Your task to perform on an android device: open app "Mercado Libre" (install if not already installed) Image 0: 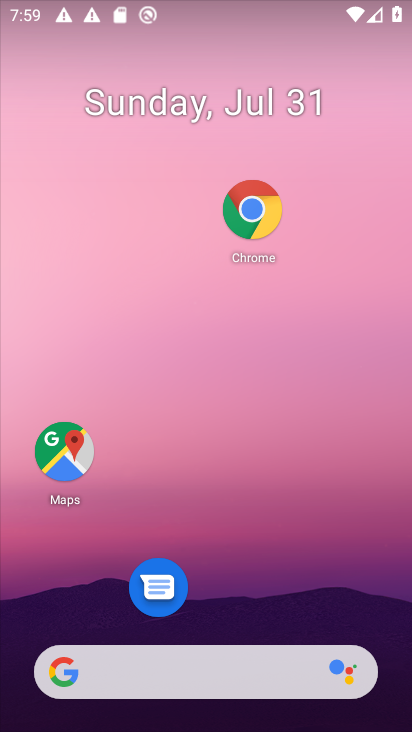
Step 0: drag from (230, 551) to (206, 377)
Your task to perform on an android device: open app "Mercado Libre" (install if not already installed) Image 1: 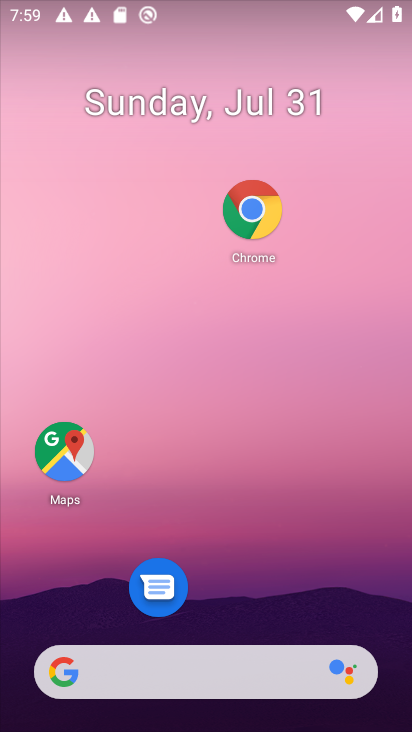
Step 1: drag from (212, 499) to (106, 130)
Your task to perform on an android device: open app "Mercado Libre" (install if not already installed) Image 2: 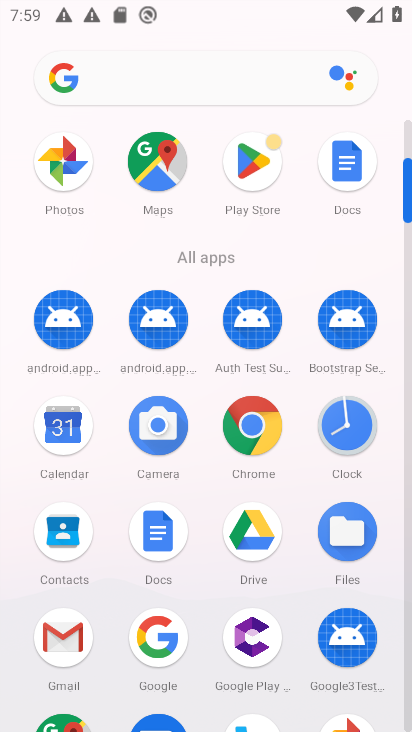
Step 2: click (230, 178)
Your task to perform on an android device: open app "Mercado Libre" (install if not already installed) Image 3: 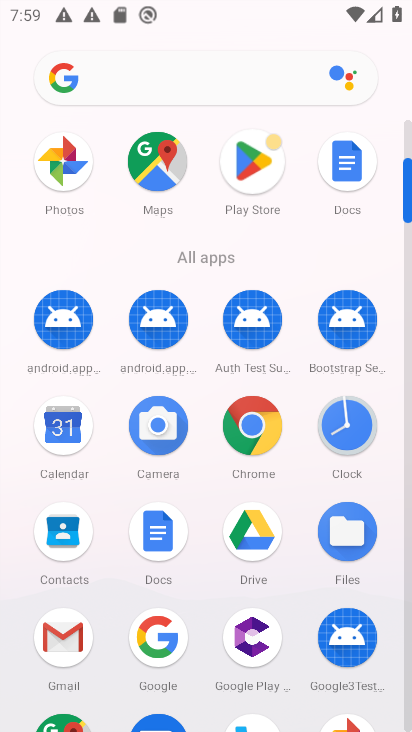
Step 3: click (231, 176)
Your task to perform on an android device: open app "Mercado Libre" (install if not already installed) Image 4: 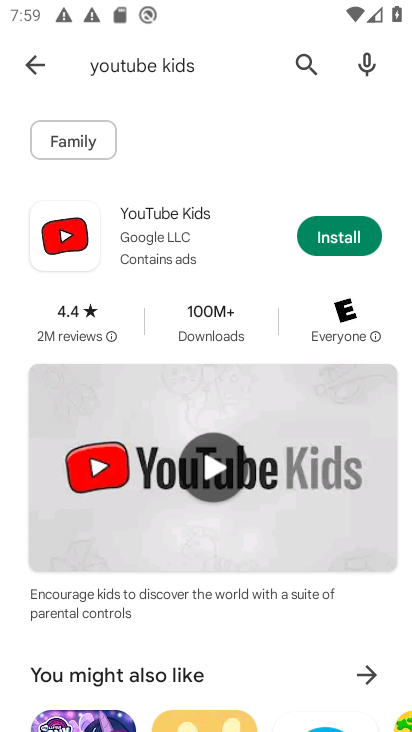
Step 4: click (34, 71)
Your task to perform on an android device: open app "Mercado Libre" (install if not already installed) Image 5: 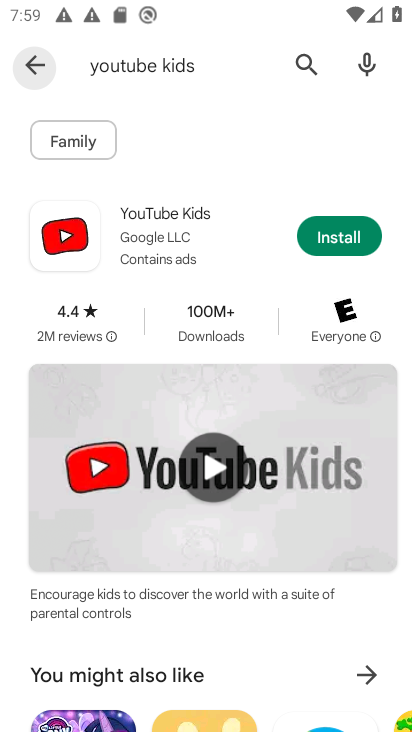
Step 5: click (33, 72)
Your task to perform on an android device: open app "Mercado Libre" (install if not already installed) Image 6: 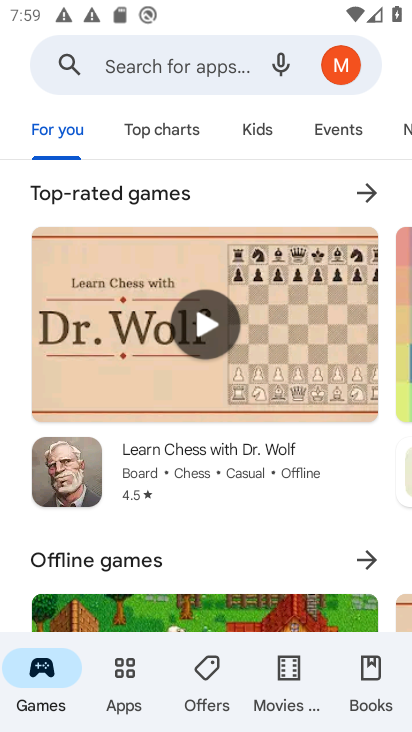
Step 6: click (136, 60)
Your task to perform on an android device: open app "Mercado Libre" (install if not already installed) Image 7: 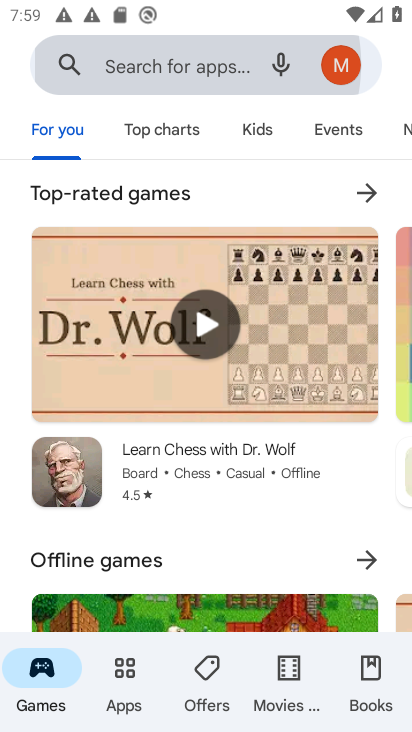
Step 7: click (135, 59)
Your task to perform on an android device: open app "Mercado Libre" (install if not already installed) Image 8: 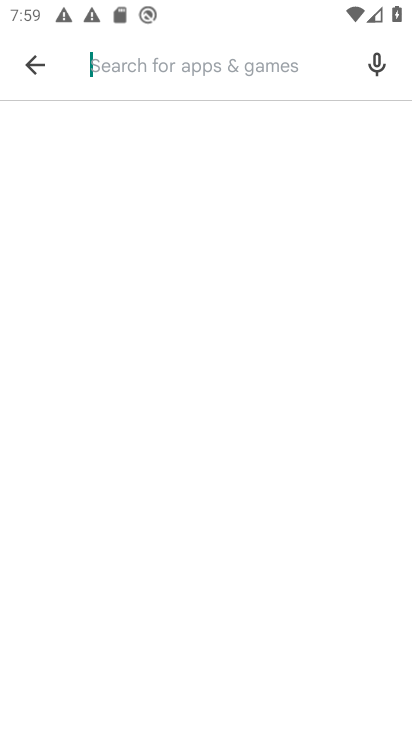
Step 8: click (135, 59)
Your task to perform on an android device: open app "Mercado Libre" (install if not already installed) Image 9: 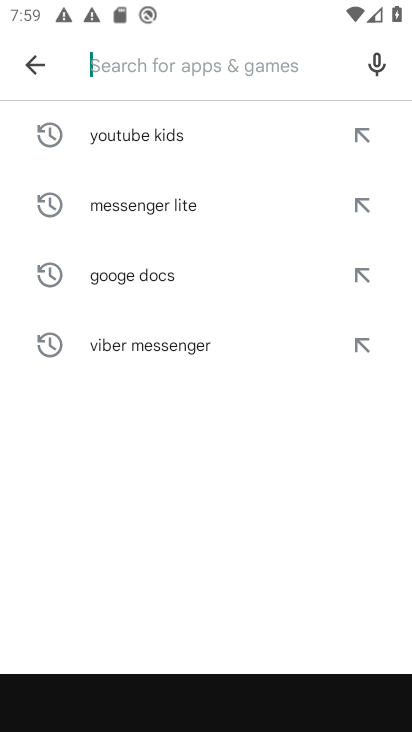
Step 9: click (135, 59)
Your task to perform on an android device: open app "Mercado Libre" (install if not already installed) Image 10: 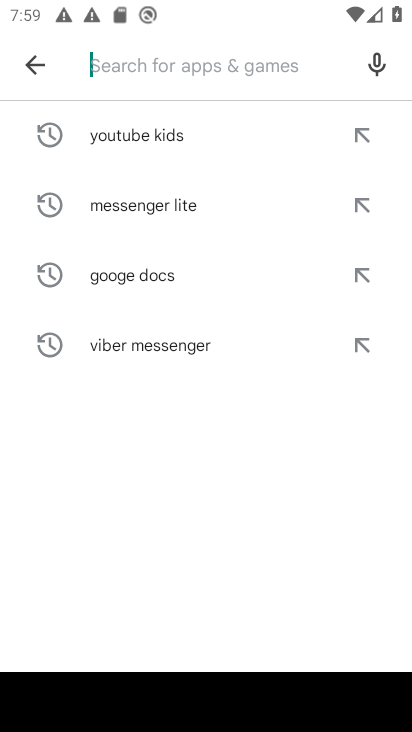
Step 10: type "mercado"
Your task to perform on an android device: open app "Mercado Libre" (install if not already installed) Image 11: 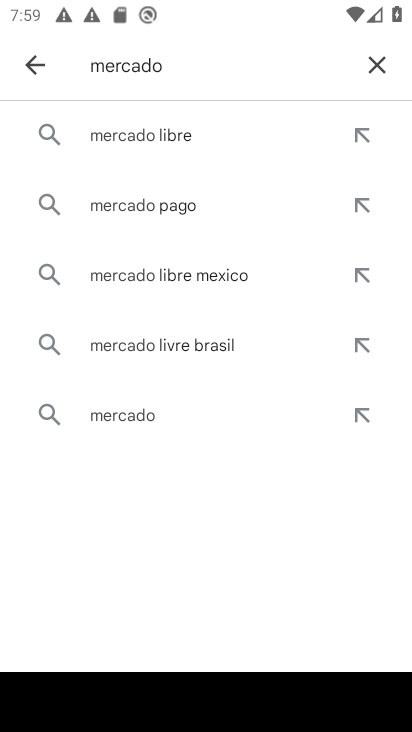
Step 11: click (143, 133)
Your task to perform on an android device: open app "Mercado Libre" (install if not already installed) Image 12: 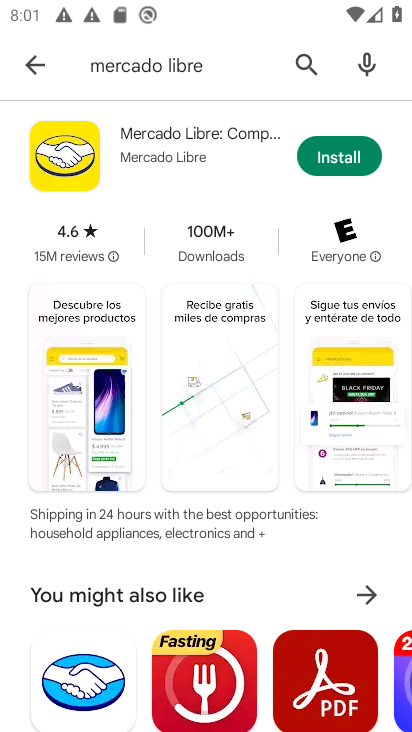
Step 12: click (329, 155)
Your task to perform on an android device: open app "Mercado Libre" (install if not already installed) Image 13: 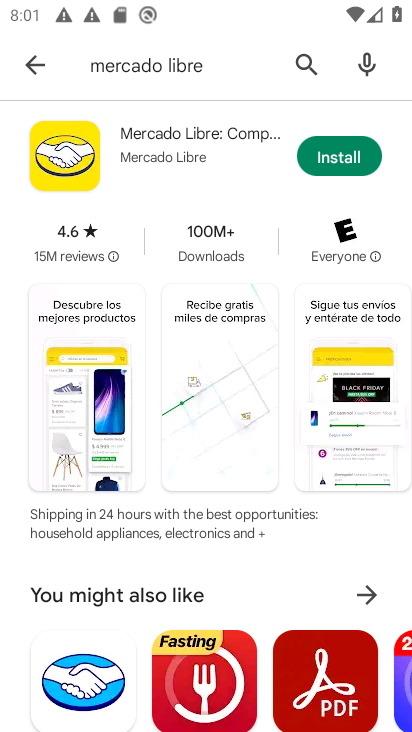
Step 13: click (330, 159)
Your task to perform on an android device: open app "Mercado Libre" (install if not already installed) Image 14: 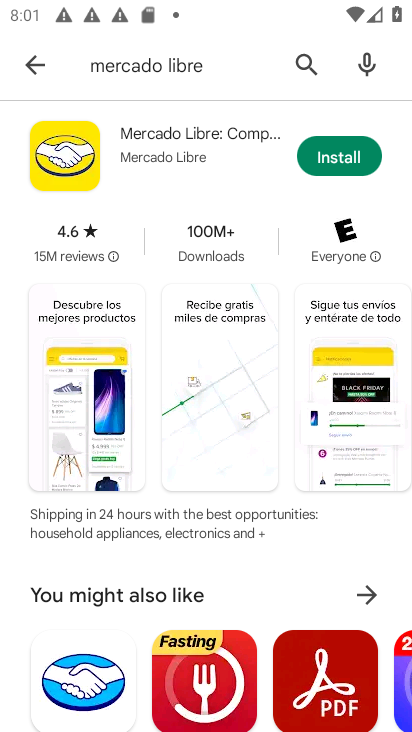
Step 14: click (331, 158)
Your task to perform on an android device: open app "Mercado Libre" (install if not already installed) Image 15: 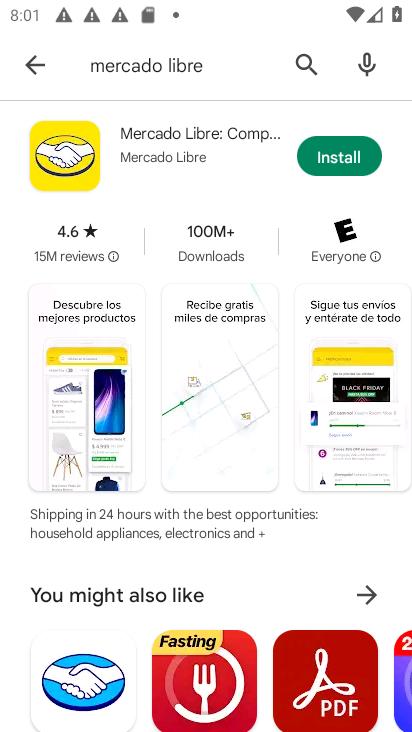
Step 15: click (332, 145)
Your task to perform on an android device: open app "Mercado Libre" (install if not already installed) Image 16: 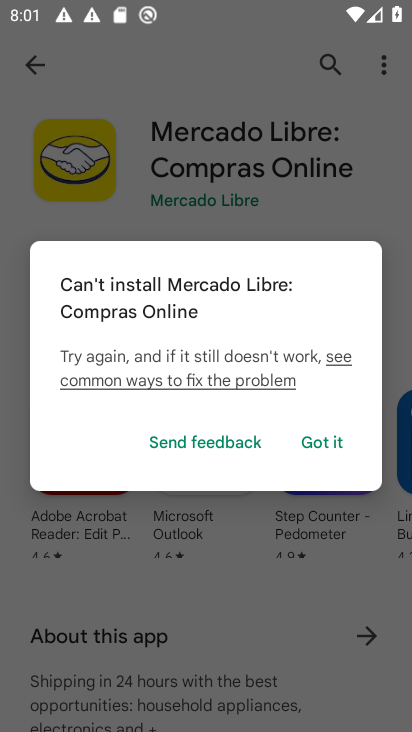
Step 16: click (322, 443)
Your task to perform on an android device: open app "Mercado Libre" (install if not already installed) Image 17: 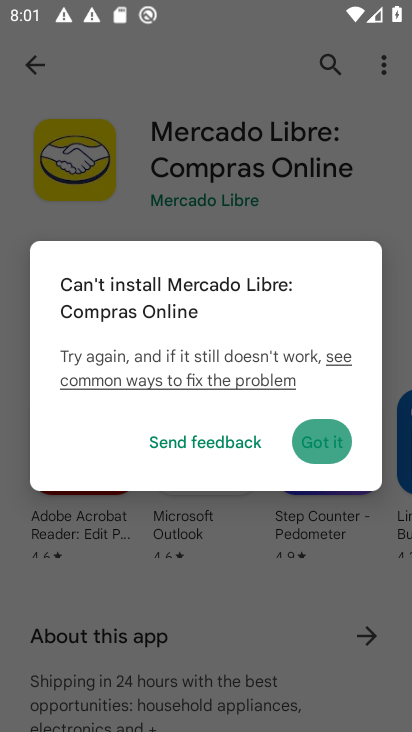
Step 17: click (317, 444)
Your task to perform on an android device: open app "Mercado Libre" (install if not already installed) Image 18: 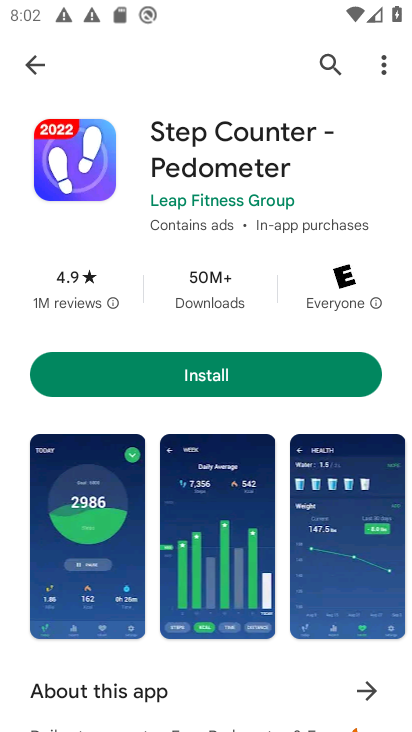
Step 18: click (35, 50)
Your task to perform on an android device: open app "Mercado Libre" (install if not already installed) Image 19: 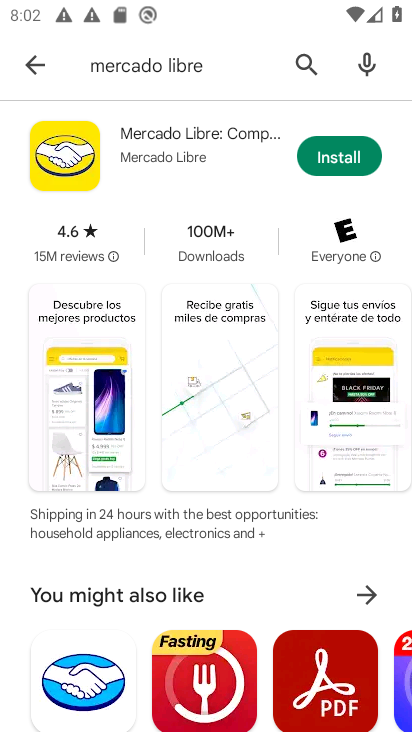
Step 19: click (324, 147)
Your task to perform on an android device: open app "Mercado Libre" (install if not already installed) Image 20: 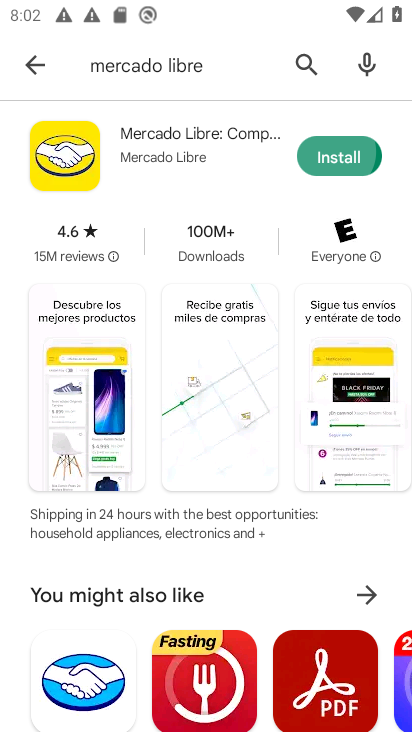
Step 20: click (326, 154)
Your task to perform on an android device: open app "Mercado Libre" (install if not already installed) Image 21: 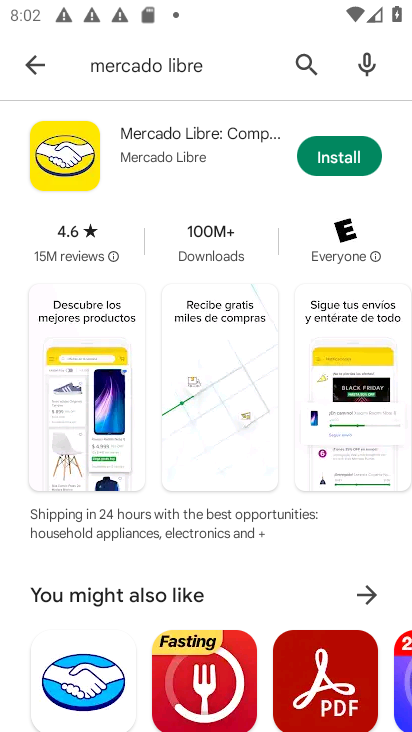
Step 21: click (357, 161)
Your task to perform on an android device: open app "Mercado Libre" (install if not already installed) Image 22: 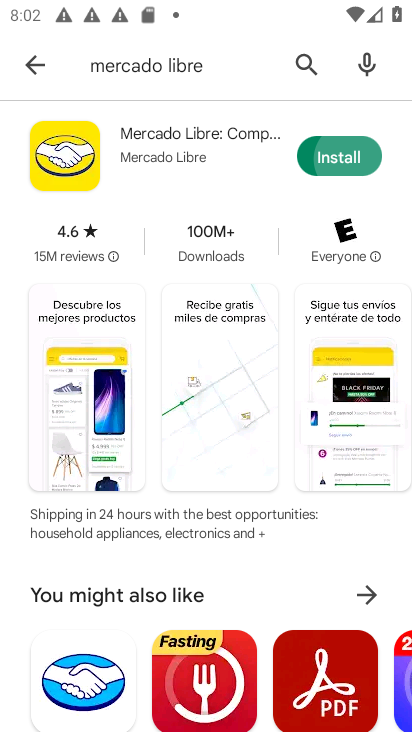
Step 22: click (357, 161)
Your task to perform on an android device: open app "Mercado Libre" (install if not already installed) Image 23: 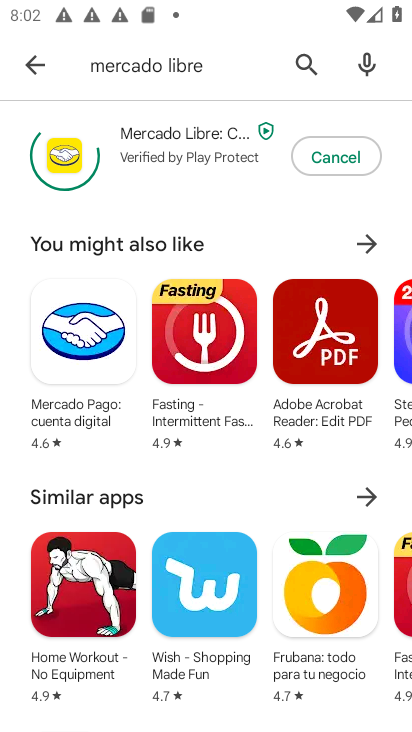
Step 23: click (357, 162)
Your task to perform on an android device: open app "Mercado Libre" (install if not already installed) Image 24: 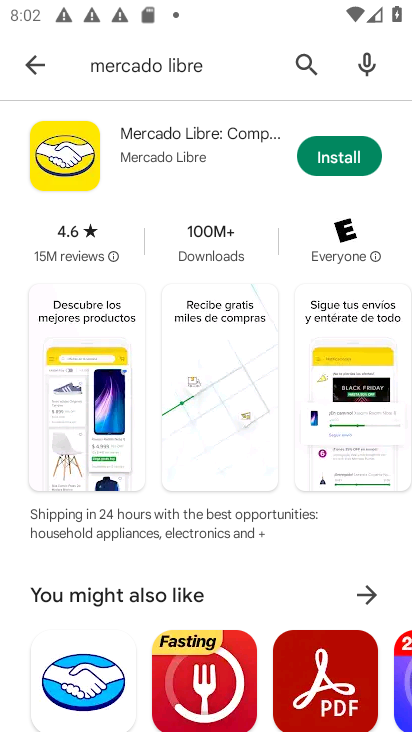
Step 24: click (345, 157)
Your task to perform on an android device: open app "Mercado Libre" (install if not already installed) Image 25: 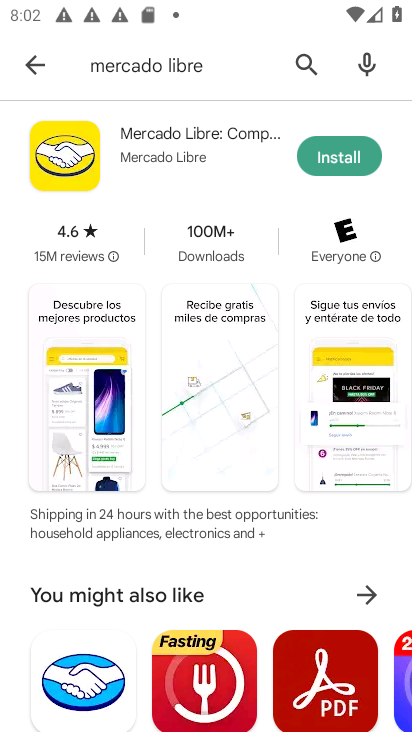
Step 25: click (344, 169)
Your task to perform on an android device: open app "Mercado Libre" (install if not already installed) Image 26: 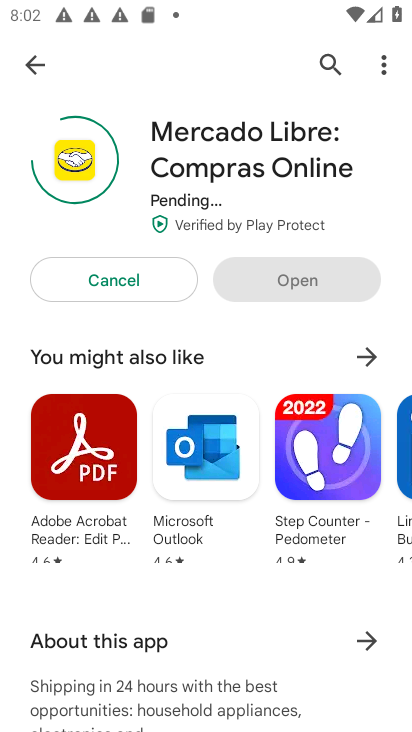
Step 26: click (281, 276)
Your task to perform on an android device: open app "Mercado Libre" (install if not already installed) Image 27: 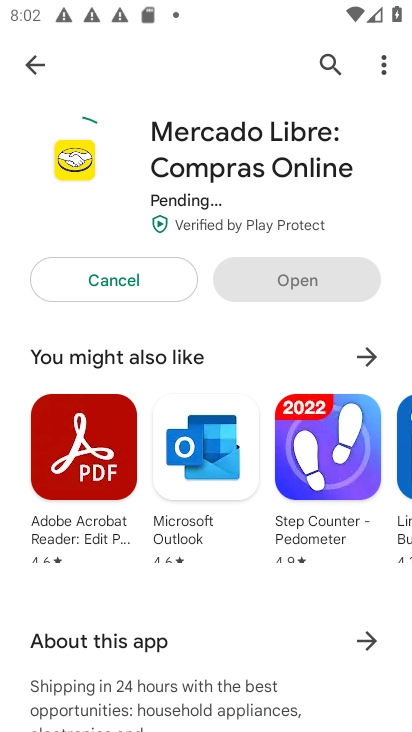
Step 27: click (283, 277)
Your task to perform on an android device: open app "Mercado Libre" (install if not already installed) Image 28: 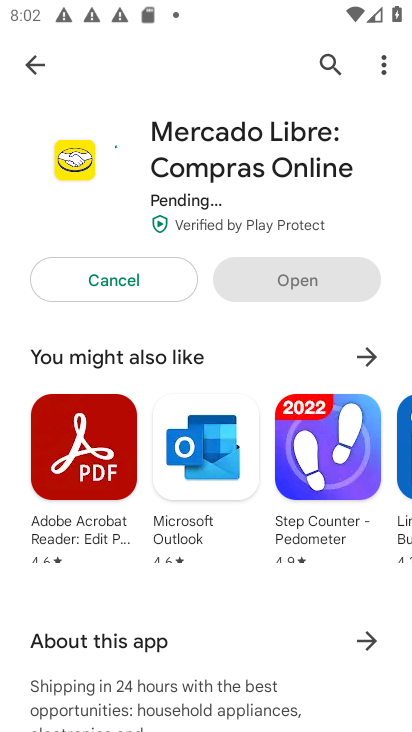
Step 28: click (283, 277)
Your task to perform on an android device: open app "Mercado Libre" (install if not already installed) Image 29: 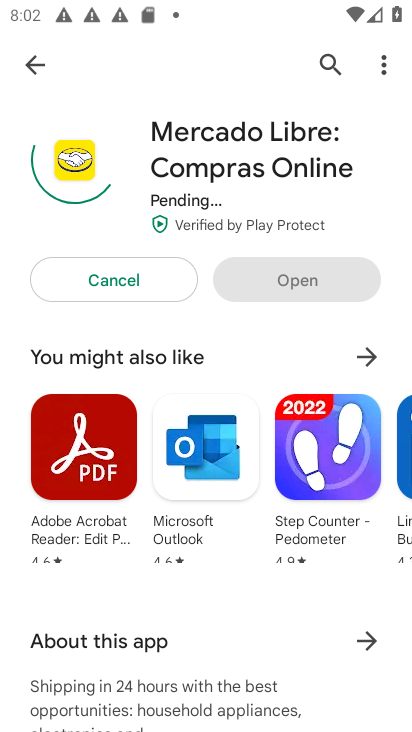
Step 29: click (277, 282)
Your task to perform on an android device: open app "Mercado Libre" (install if not already installed) Image 30: 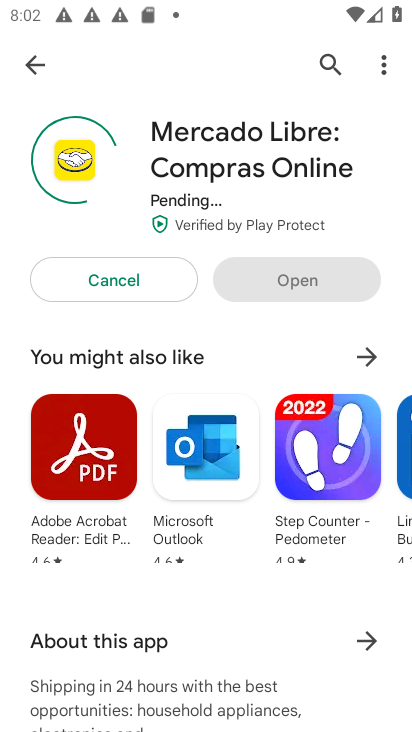
Step 30: click (277, 276)
Your task to perform on an android device: open app "Mercado Libre" (install if not already installed) Image 31: 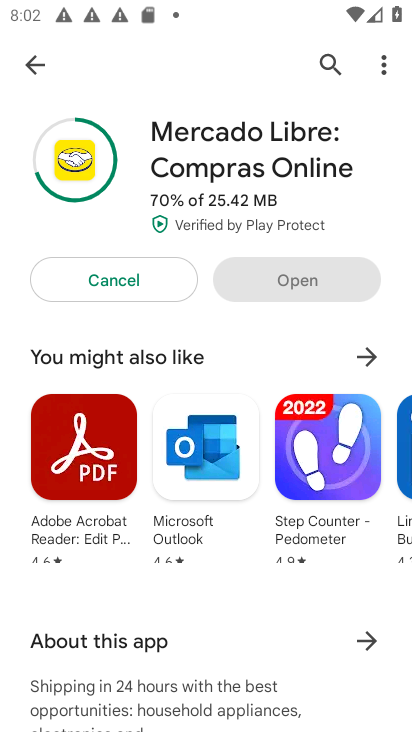
Step 31: click (308, 279)
Your task to perform on an android device: open app "Mercado Libre" (install if not already installed) Image 32: 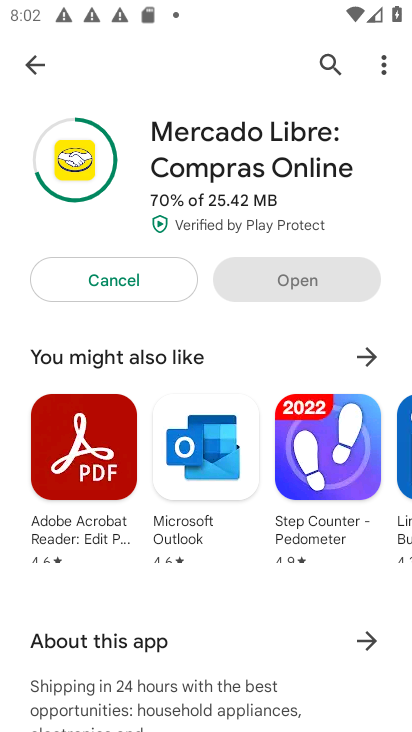
Step 32: click (307, 278)
Your task to perform on an android device: open app "Mercado Libre" (install if not already installed) Image 33: 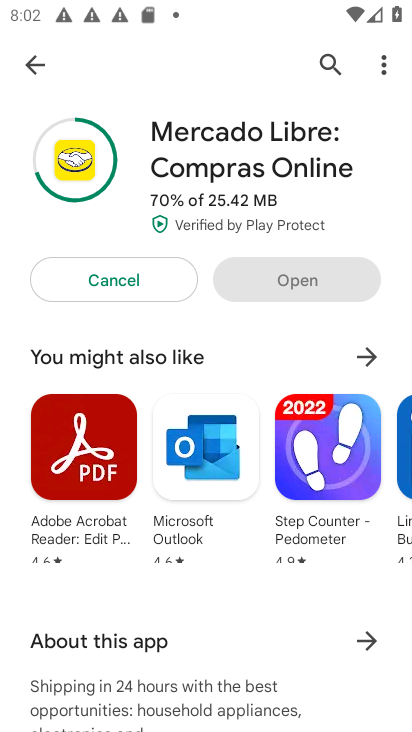
Step 33: click (307, 278)
Your task to perform on an android device: open app "Mercado Libre" (install if not already installed) Image 34: 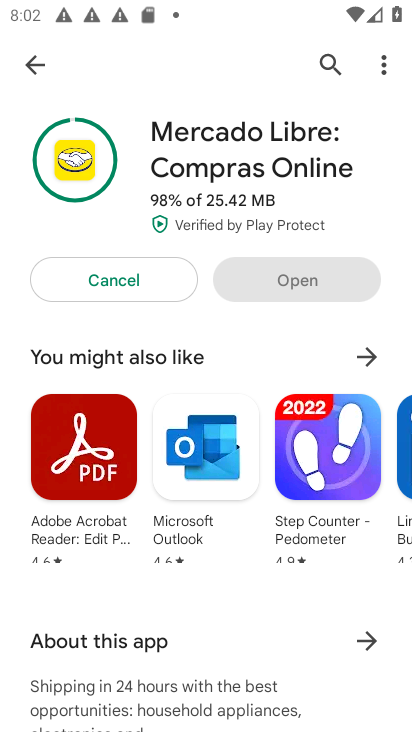
Step 34: click (307, 278)
Your task to perform on an android device: open app "Mercado Libre" (install if not already installed) Image 35: 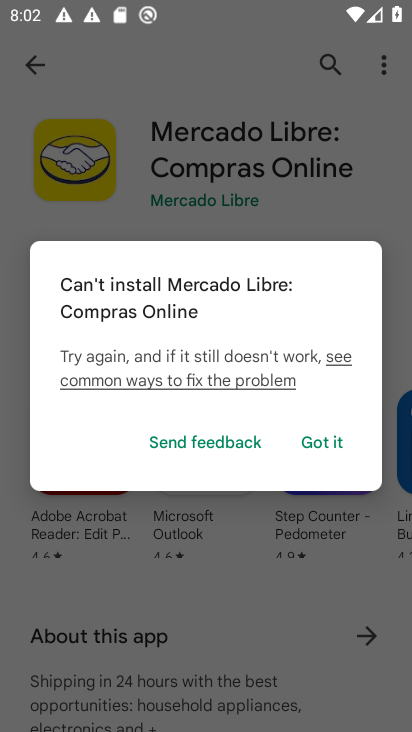
Step 35: task complete